Your task to perform on an android device: Go to display settings Image 0: 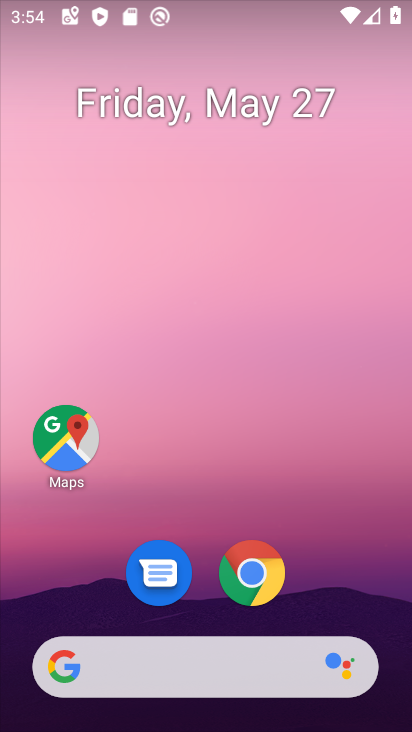
Step 0: drag from (236, 512) to (280, 35)
Your task to perform on an android device: Go to display settings Image 1: 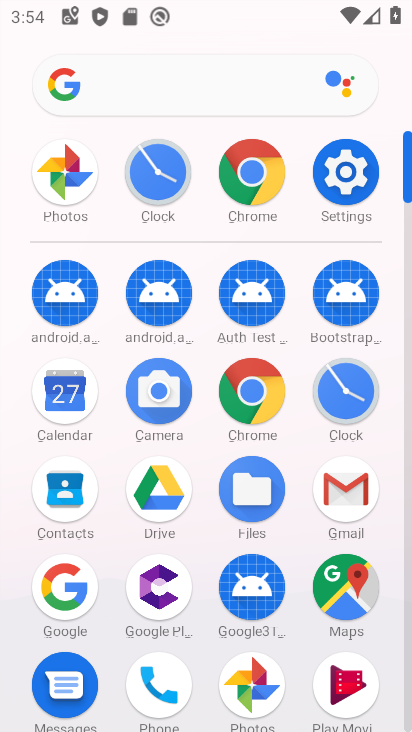
Step 1: click (326, 157)
Your task to perform on an android device: Go to display settings Image 2: 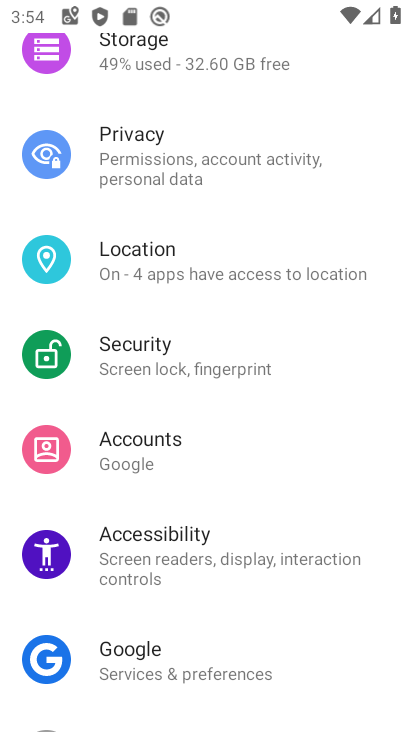
Step 2: drag from (256, 281) to (246, 695)
Your task to perform on an android device: Go to display settings Image 3: 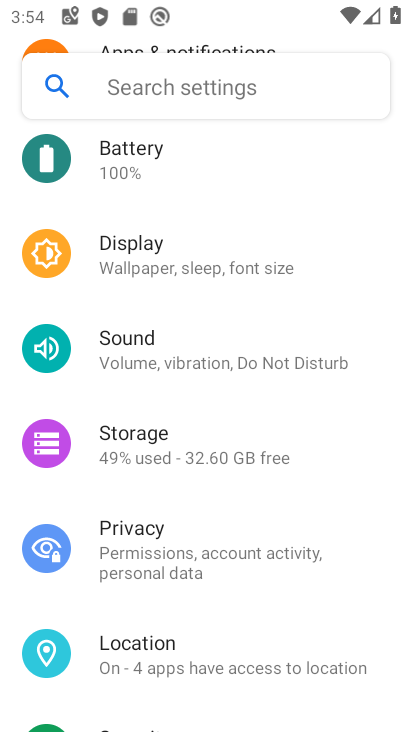
Step 3: click (202, 251)
Your task to perform on an android device: Go to display settings Image 4: 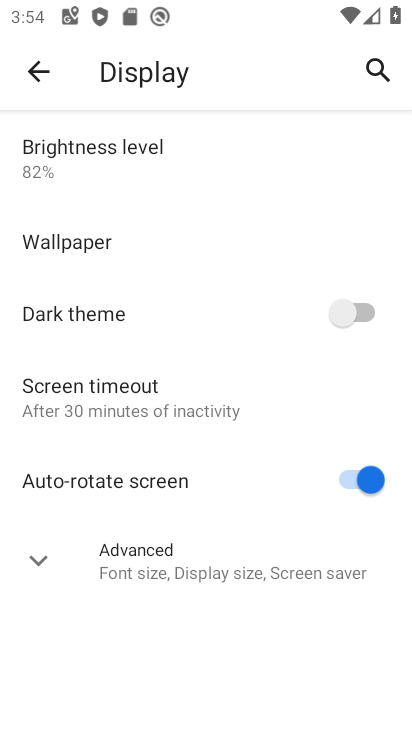
Step 4: task complete